Your task to perform on an android device: Go to eBay Image 0: 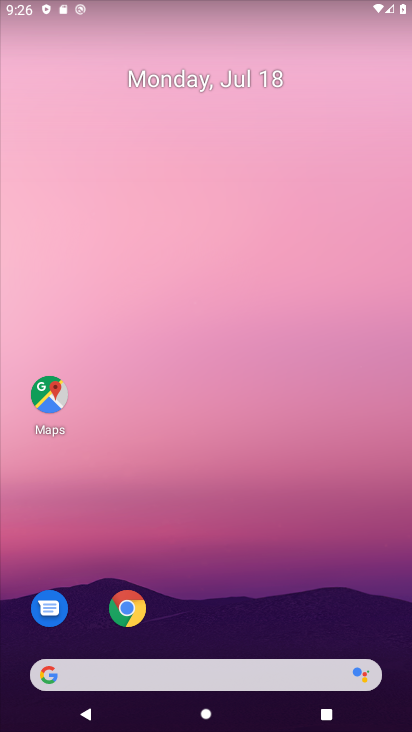
Step 0: drag from (143, 41) to (124, 87)
Your task to perform on an android device: Go to eBay Image 1: 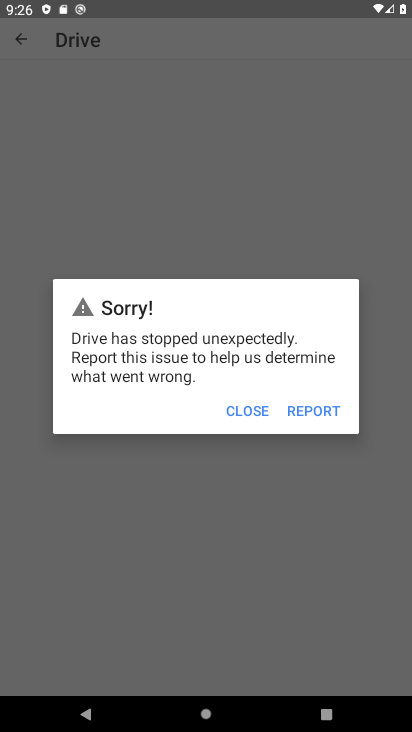
Step 1: drag from (249, 421) to (204, 96)
Your task to perform on an android device: Go to eBay Image 2: 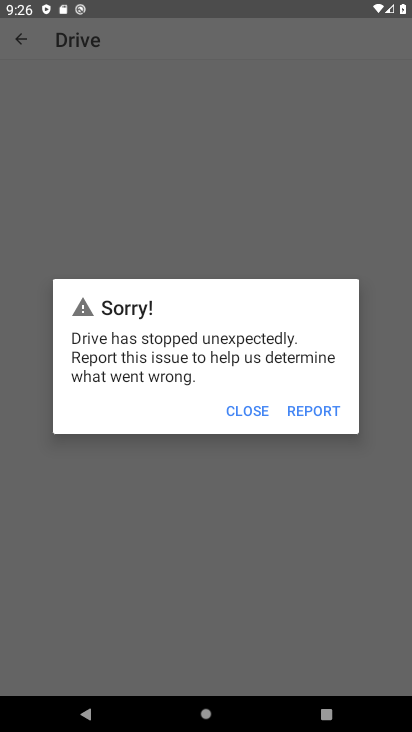
Step 2: click (254, 415)
Your task to perform on an android device: Go to eBay Image 3: 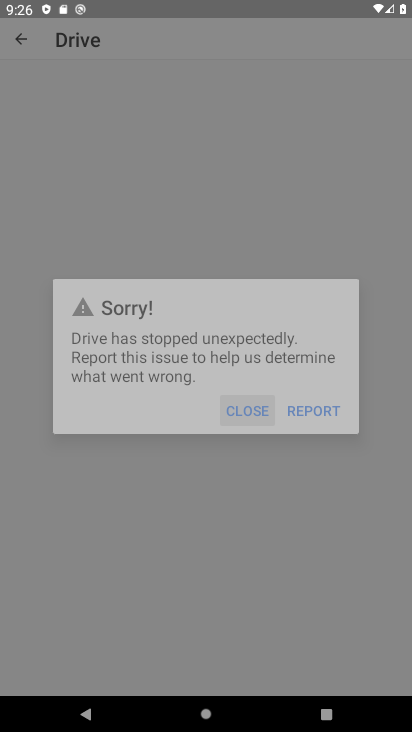
Step 3: click (254, 415)
Your task to perform on an android device: Go to eBay Image 4: 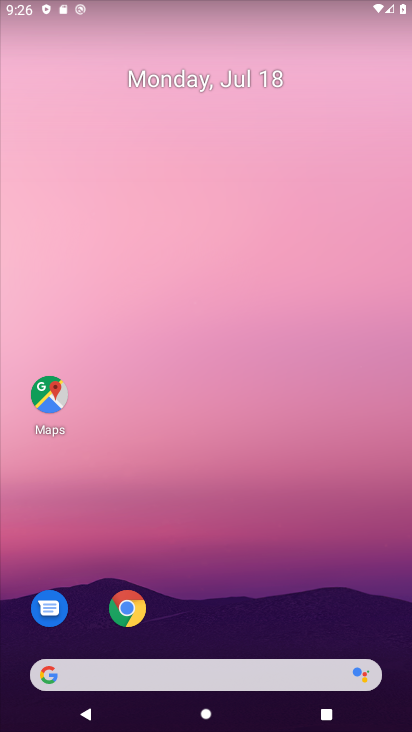
Step 4: drag from (263, 610) to (206, 191)
Your task to perform on an android device: Go to eBay Image 5: 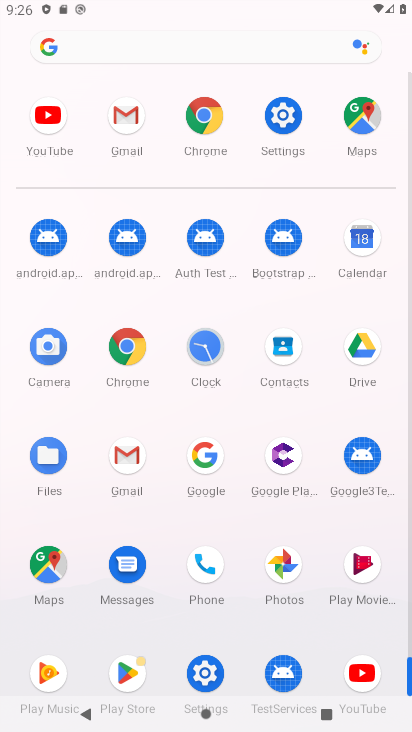
Step 5: click (206, 122)
Your task to perform on an android device: Go to eBay Image 6: 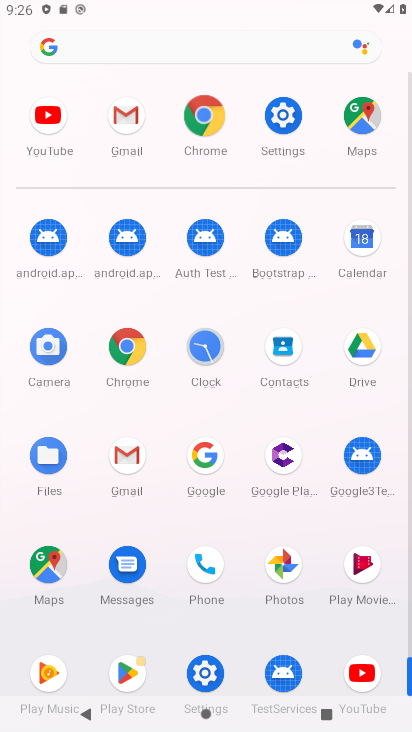
Step 6: click (206, 120)
Your task to perform on an android device: Go to eBay Image 7: 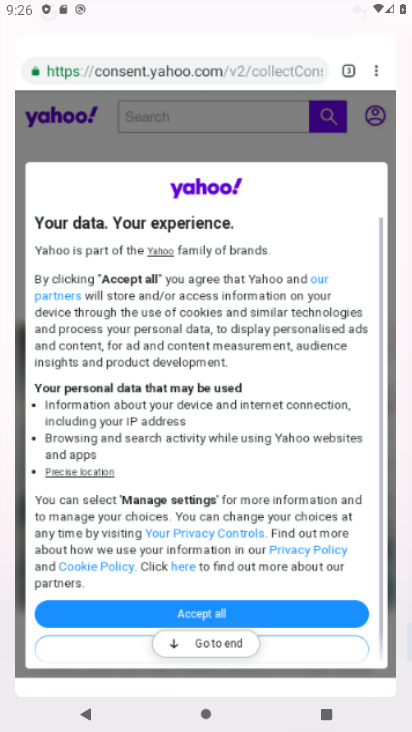
Step 7: click (206, 117)
Your task to perform on an android device: Go to eBay Image 8: 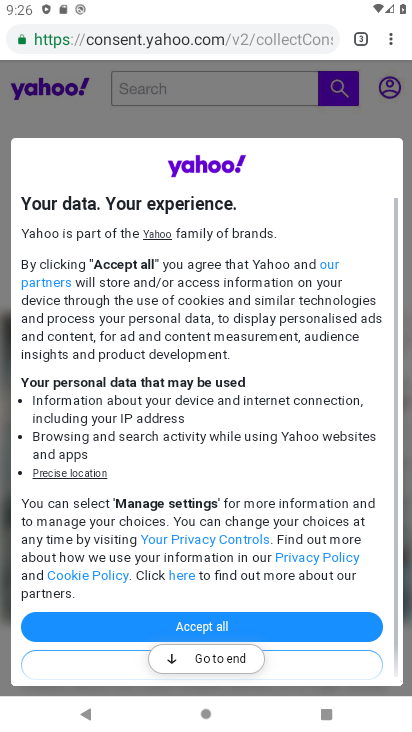
Step 8: drag from (387, 40) to (253, 73)
Your task to perform on an android device: Go to eBay Image 9: 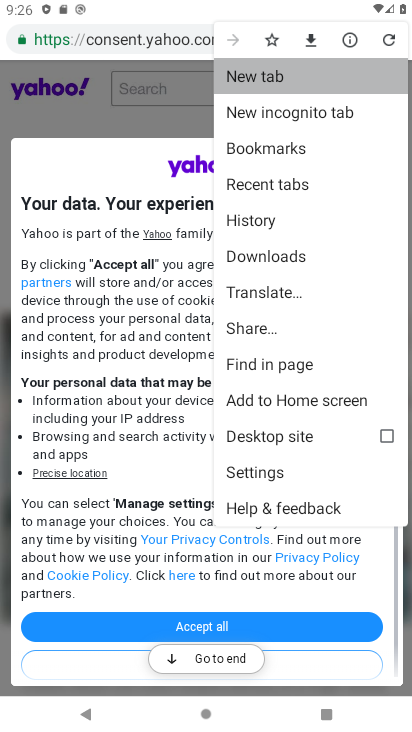
Step 9: click (253, 73)
Your task to perform on an android device: Go to eBay Image 10: 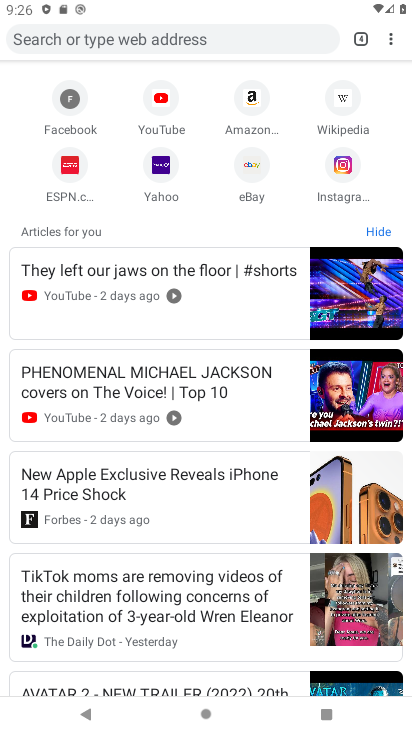
Step 10: click (244, 163)
Your task to perform on an android device: Go to eBay Image 11: 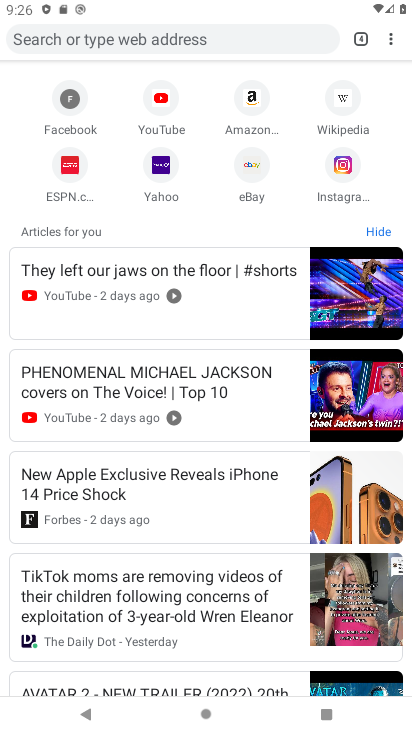
Step 11: click (266, 173)
Your task to perform on an android device: Go to eBay Image 12: 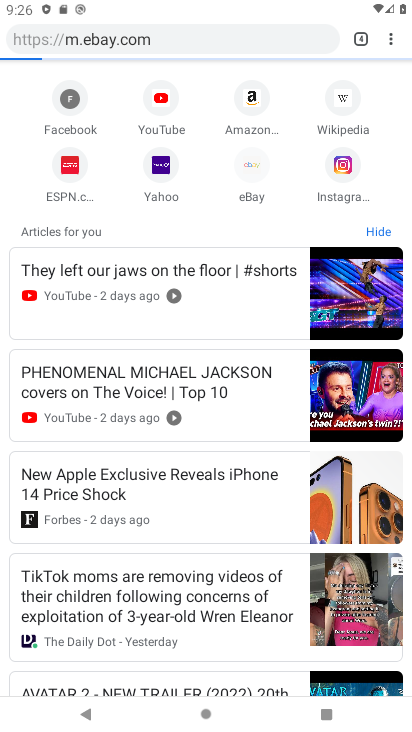
Step 12: click (253, 170)
Your task to perform on an android device: Go to eBay Image 13: 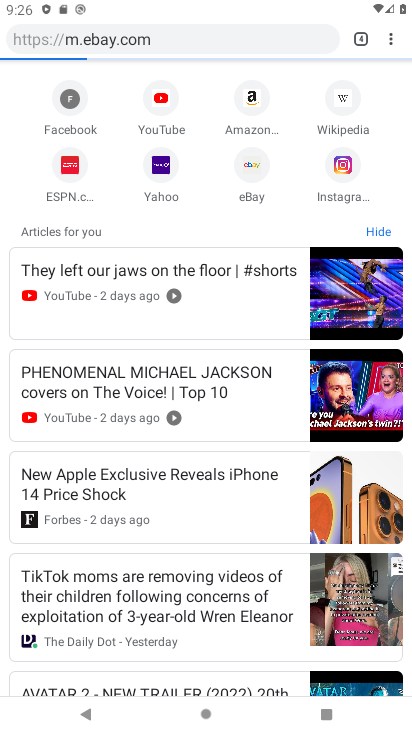
Step 13: click (253, 170)
Your task to perform on an android device: Go to eBay Image 14: 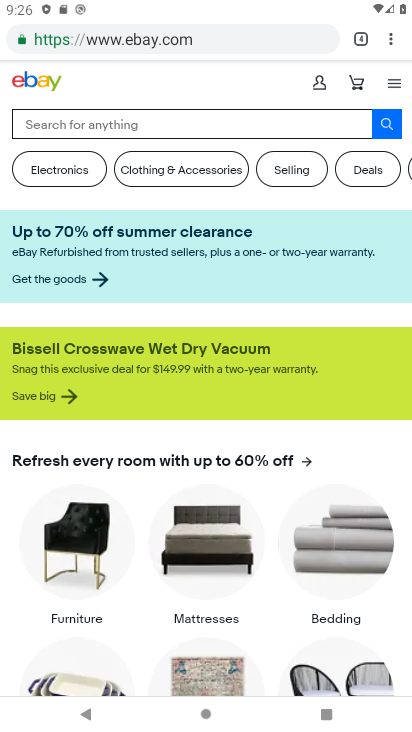
Step 14: task complete